Your task to perform on an android device: star an email in the gmail app Image 0: 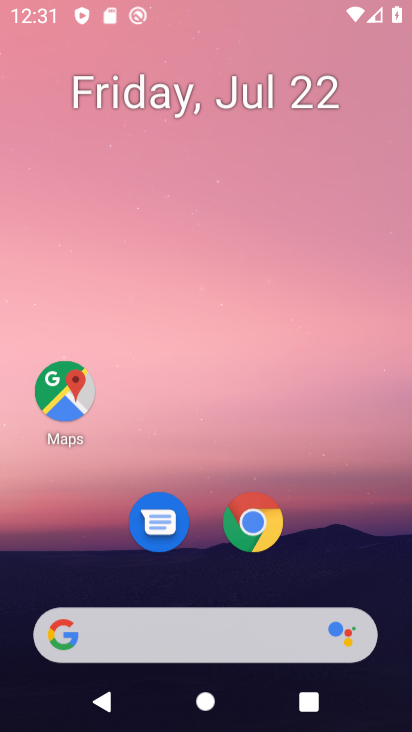
Step 0: press home button
Your task to perform on an android device: star an email in the gmail app Image 1: 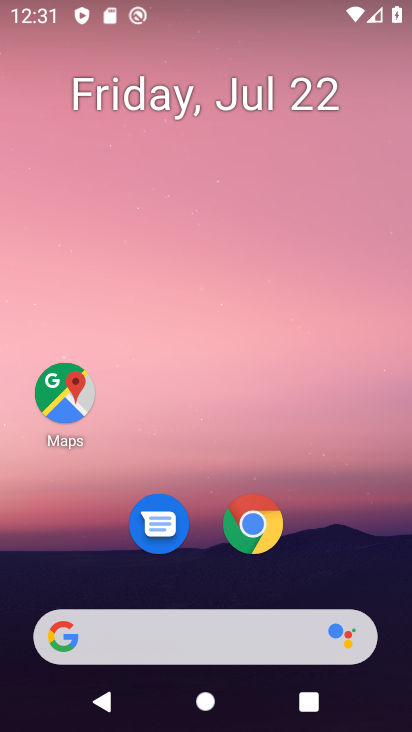
Step 1: drag from (165, 630) to (325, 95)
Your task to perform on an android device: star an email in the gmail app Image 2: 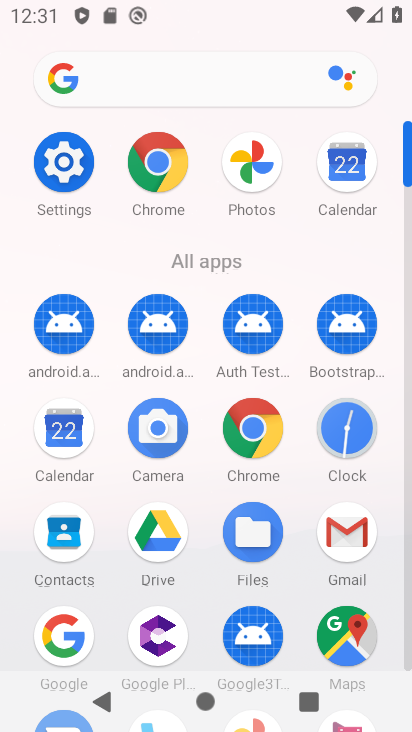
Step 2: click (344, 543)
Your task to perform on an android device: star an email in the gmail app Image 3: 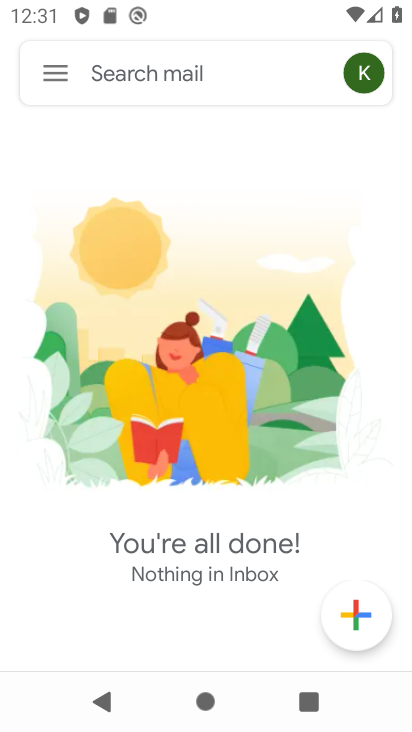
Step 3: task complete